Your task to perform on an android device: open chrome and create a bookmark for the current page Image 0: 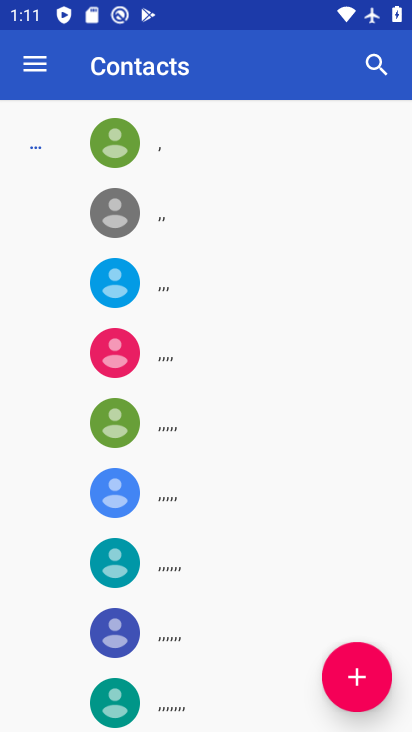
Step 0: press home button
Your task to perform on an android device: open chrome and create a bookmark for the current page Image 1: 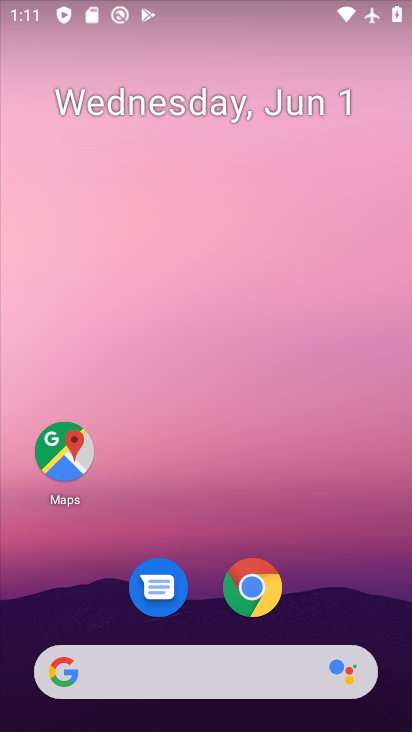
Step 1: click (246, 584)
Your task to perform on an android device: open chrome and create a bookmark for the current page Image 2: 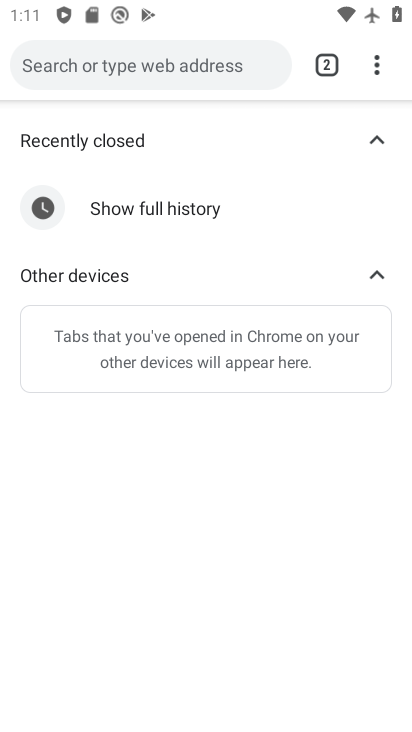
Step 2: click (373, 71)
Your task to perform on an android device: open chrome and create a bookmark for the current page Image 3: 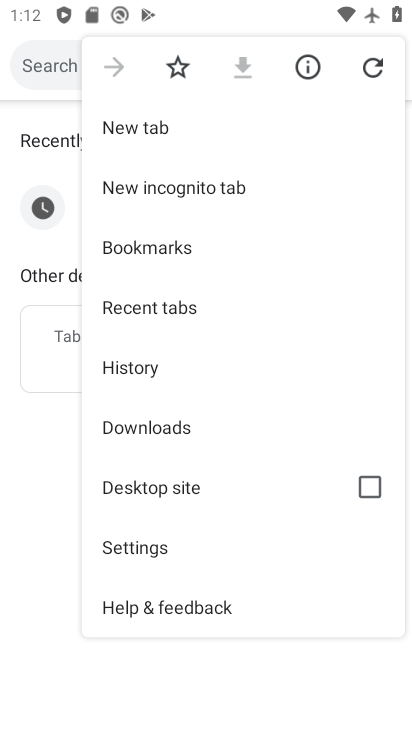
Step 3: click (179, 63)
Your task to perform on an android device: open chrome and create a bookmark for the current page Image 4: 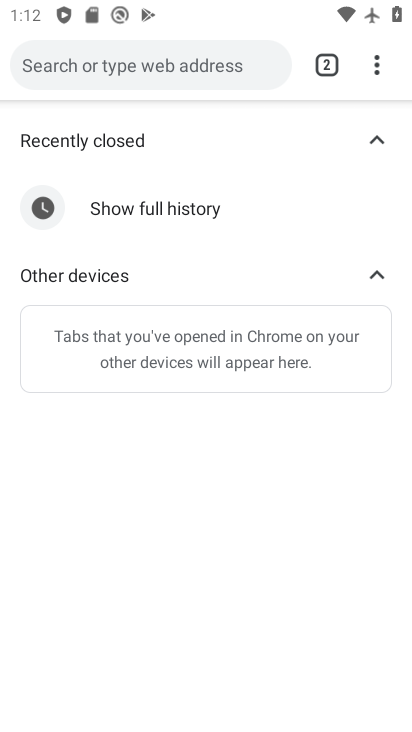
Step 4: task complete